Your task to perform on an android device: toggle notification dots Image 0: 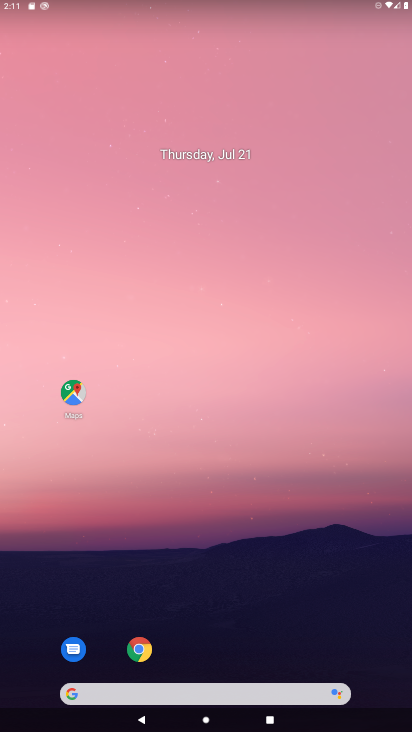
Step 0: drag from (271, 549) to (308, 54)
Your task to perform on an android device: toggle notification dots Image 1: 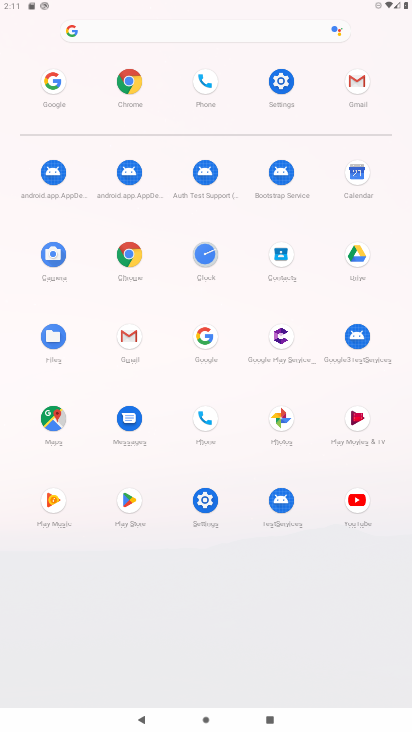
Step 1: click (283, 83)
Your task to perform on an android device: toggle notification dots Image 2: 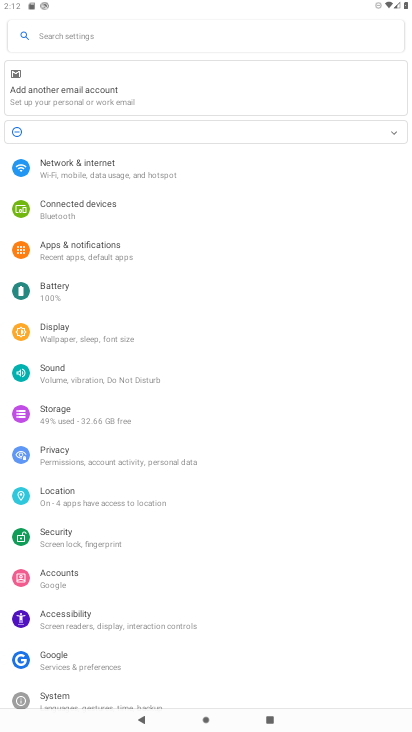
Step 2: click (109, 247)
Your task to perform on an android device: toggle notification dots Image 3: 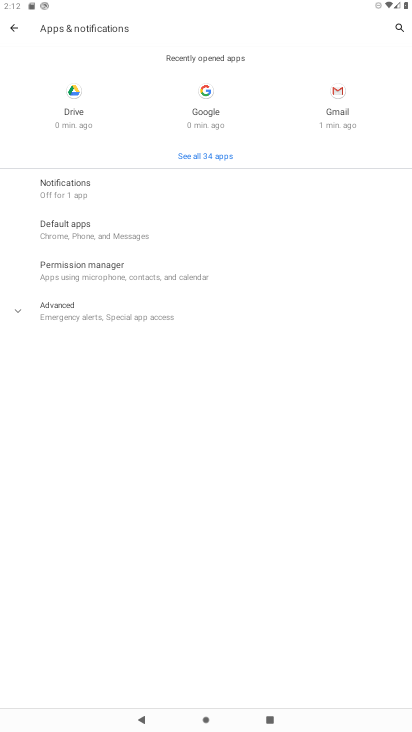
Step 3: click (62, 200)
Your task to perform on an android device: toggle notification dots Image 4: 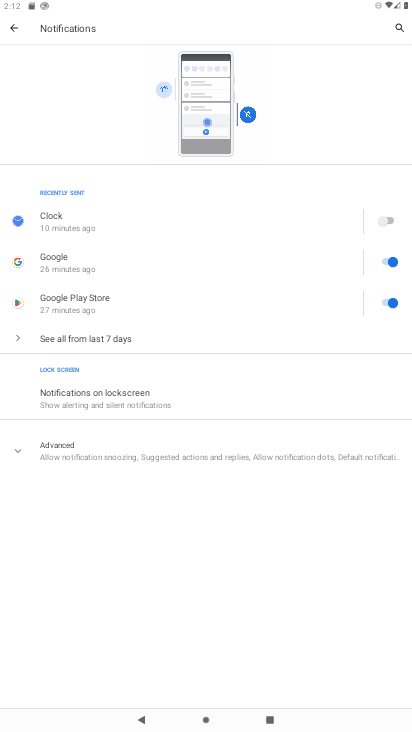
Step 4: click (33, 452)
Your task to perform on an android device: toggle notification dots Image 5: 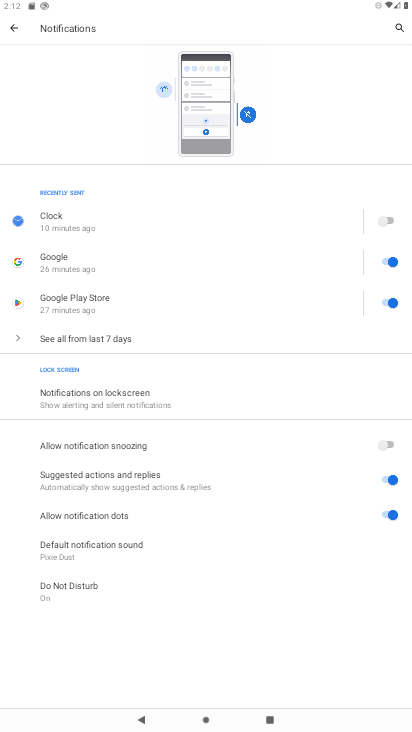
Step 5: click (384, 516)
Your task to perform on an android device: toggle notification dots Image 6: 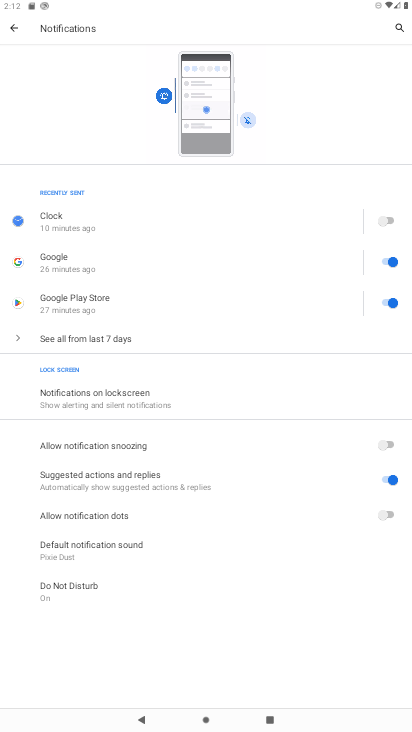
Step 6: task complete